Your task to perform on an android device: Go to network settings Image 0: 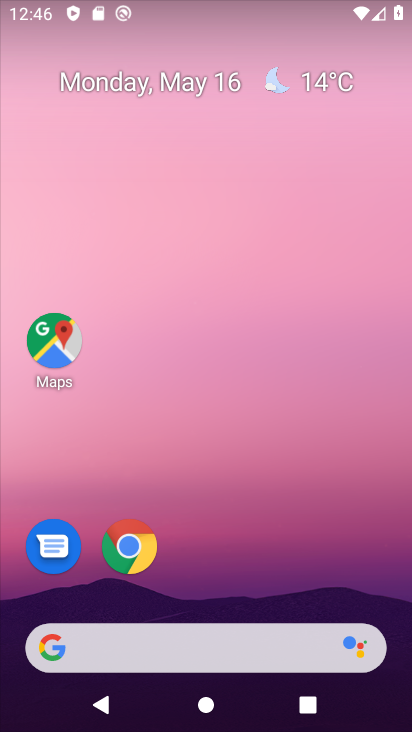
Step 0: drag from (246, 667) to (289, 269)
Your task to perform on an android device: Go to network settings Image 1: 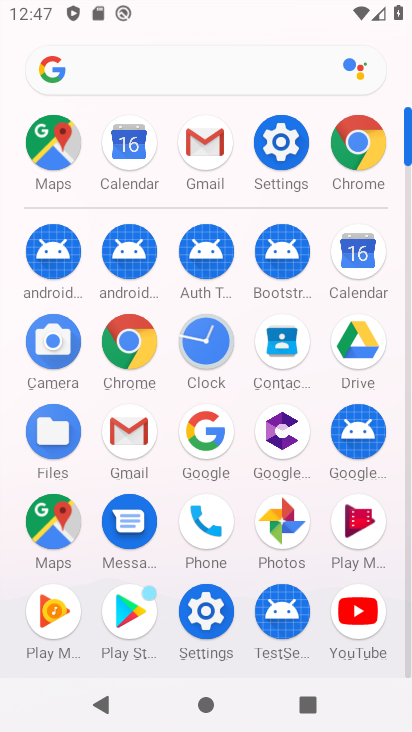
Step 1: click (274, 160)
Your task to perform on an android device: Go to network settings Image 2: 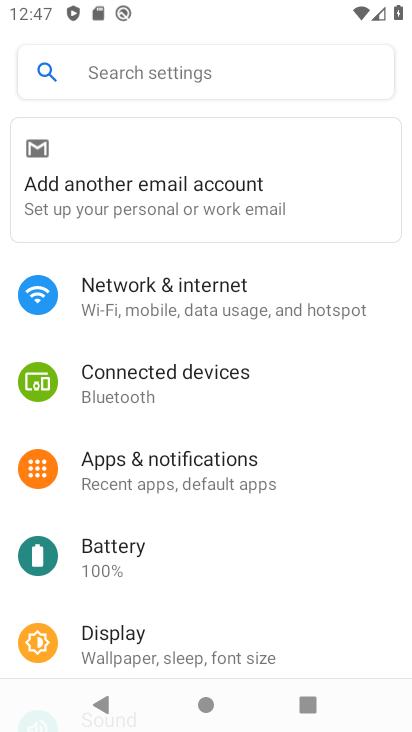
Step 2: click (124, 286)
Your task to perform on an android device: Go to network settings Image 3: 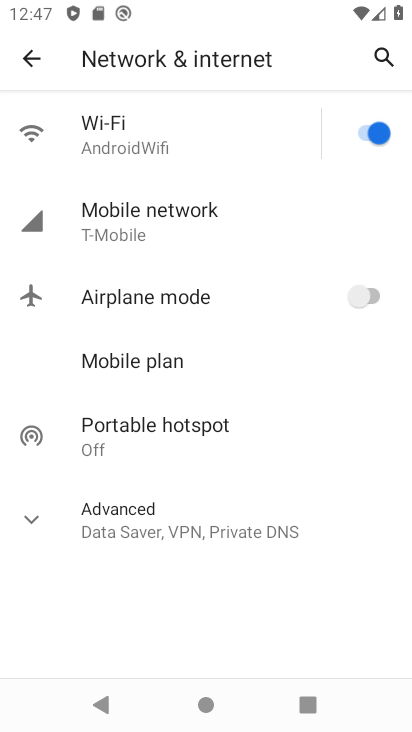
Step 3: task complete